Your task to perform on an android device: Open Android settings Image 0: 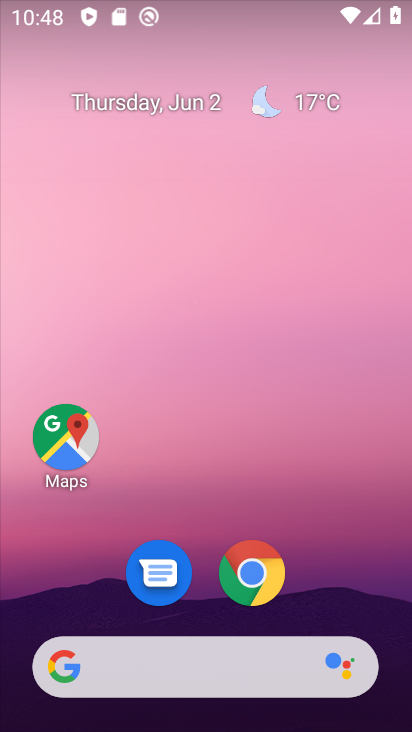
Step 0: task complete